Your task to perform on an android device: Go to privacy settings Image 0: 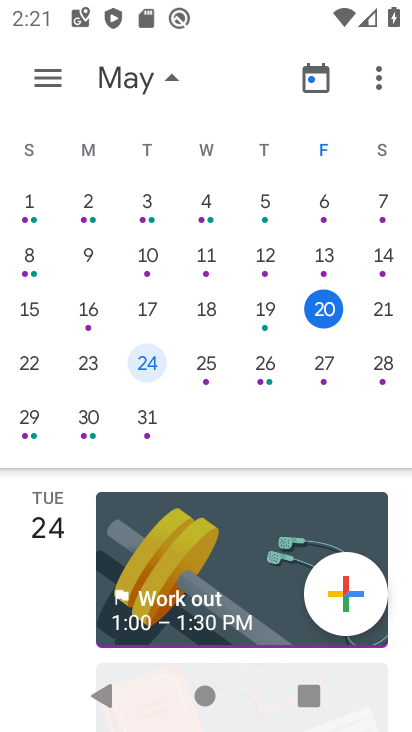
Step 0: press home button
Your task to perform on an android device: Go to privacy settings Image 1: 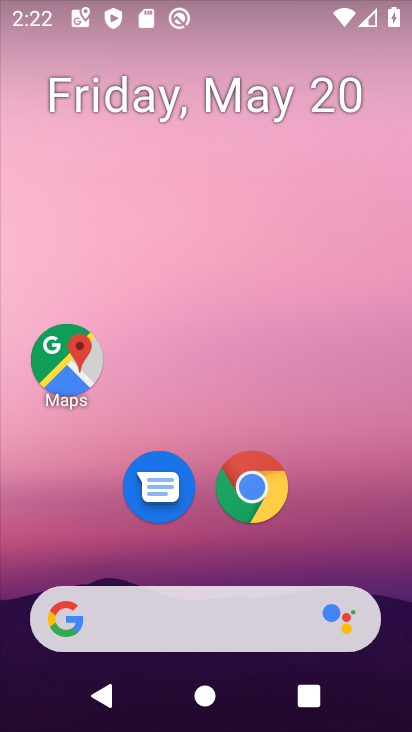
Step 1: drag from (387, 569) to (343, 111)
Your task to perform on an android device: Go to privacy settings Image 2: 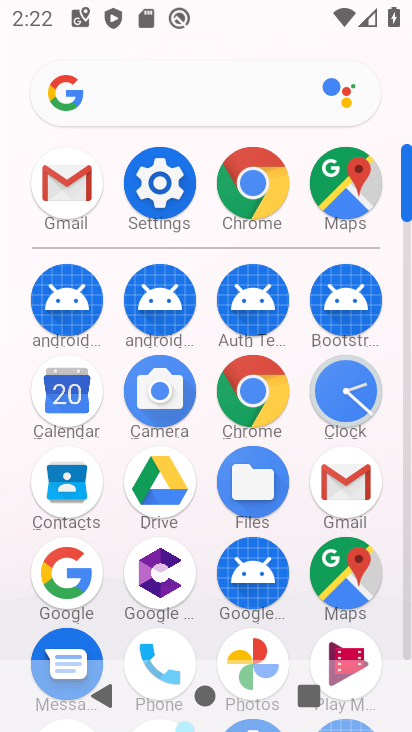
Step 2: click (166, 189)
Your task to perform on an android device: Go to privacy settings Image 3: 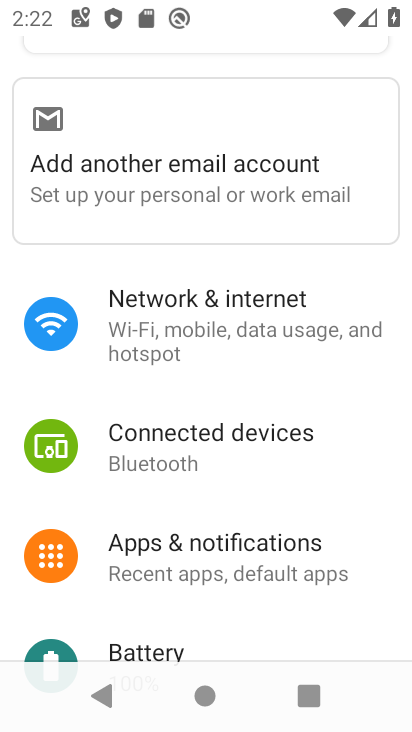
Step 3: drag from (210, 557) to (252, 202)
Your task to perform on an android device: Go to privacy settings Image 4: 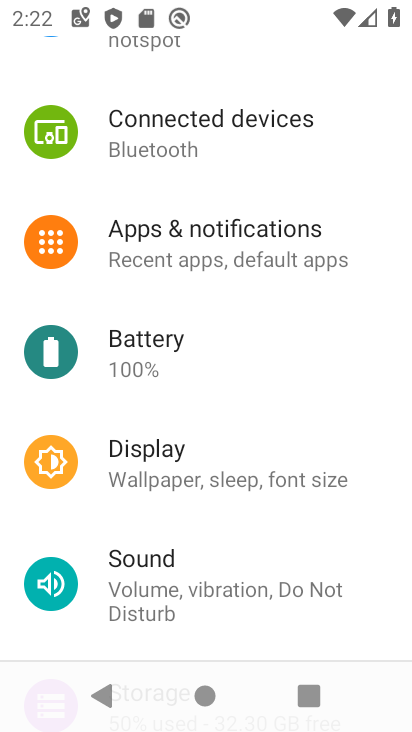
Step 4: drag from (236, 398) to (240, 210)
Your task to perform on an android device: Go to privacy settings Image 5: 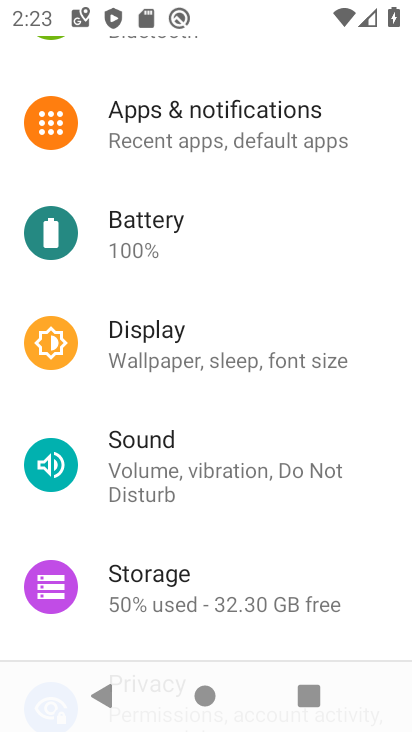
Step 5: drag from (237, 561) to (280, 169)
Your task to perform on an android device: Go to privacy settings Image 6: 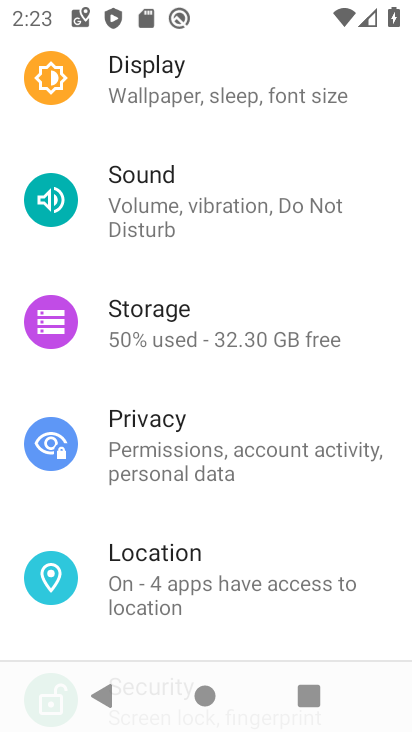
Step 6: click (204, 467)
Your task to perform on an android device: Go to privacy settings Image 7: 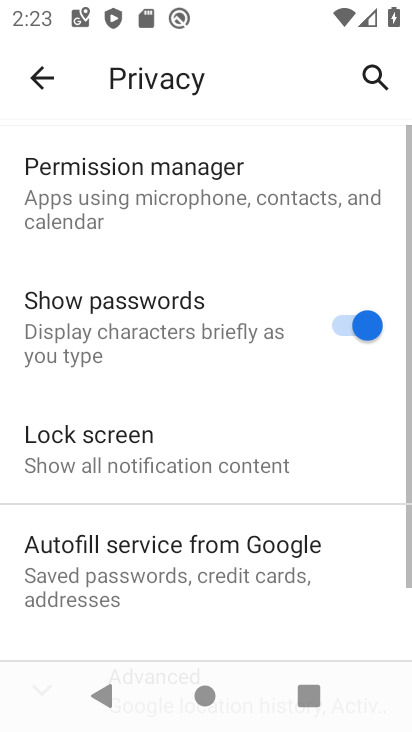
Step 7: task complete